Your task to perform on an android device: delete the emails in spam in the gmail app Image 0: 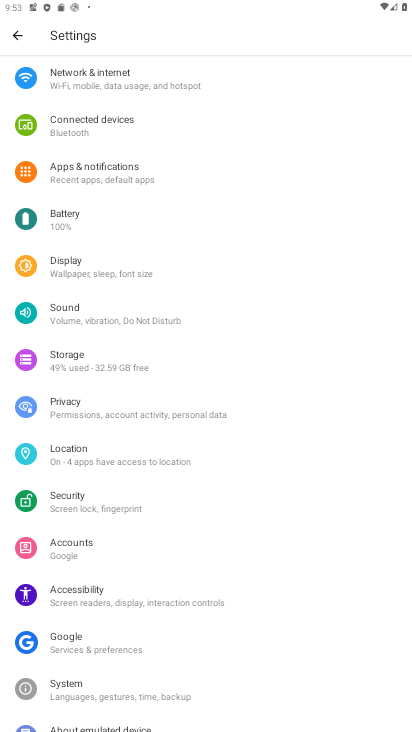
Step 0: press home button
Your task to perform on an android device: delete the emails in spam in the gmail app Image 1: 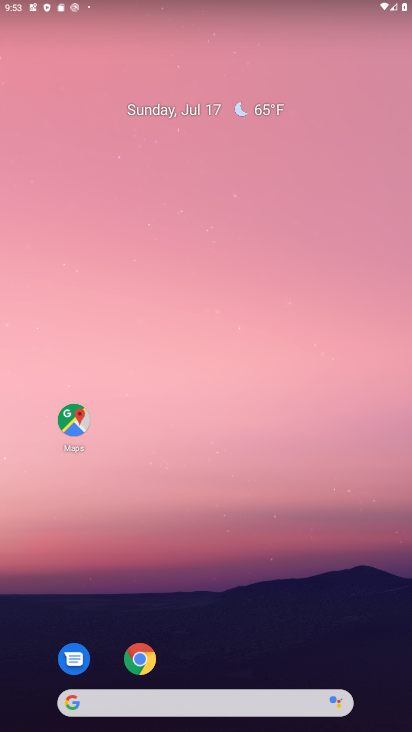
Step 1: drag from (219, 648) to (192, 41)
Your task to perform on an android device: delete the emails in spam in the gmail app Image 2: 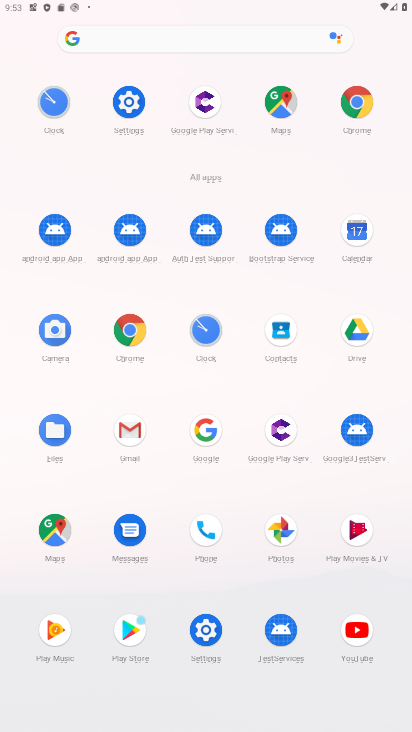
Step 2: click (124, 439)
Your task to perform on an android device: delete the emails in spam in the gmail app Image 3: 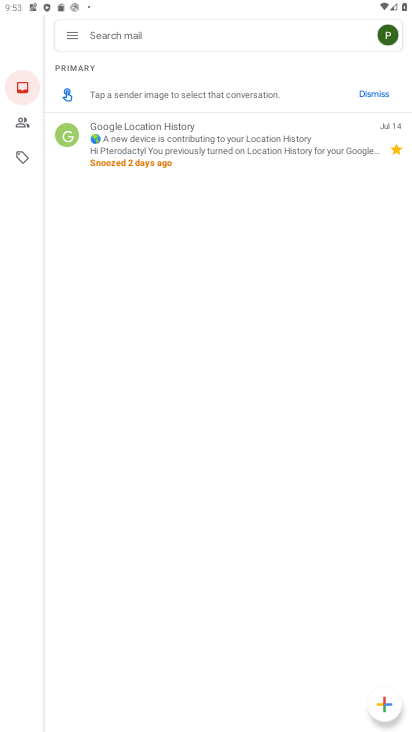
Step 3: click (66, 139)
Your task to perform on an android device: delete the emails in spam in the gmail app Image 4: 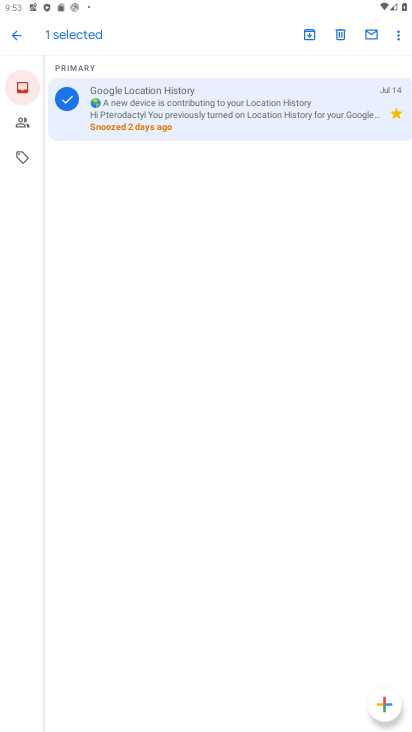
Step 4: click (63, 98)
Your task to perform on an android device: delete the emails in spam in the gmail app Image 5: 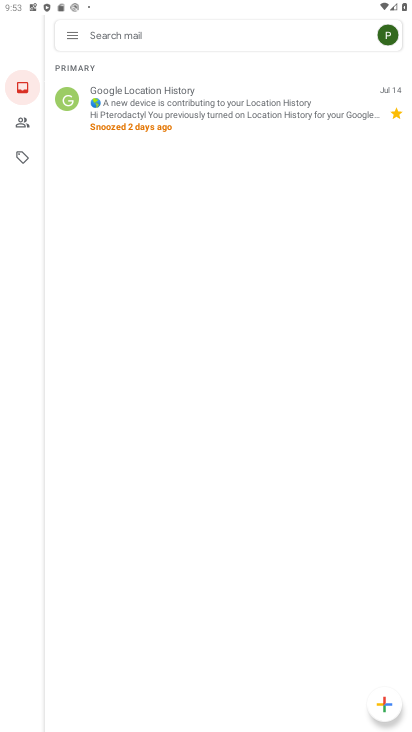
Step 5: click (69, 49)
Your task to perform on an android device: delete the emails in spam in the gmail app Image 6: 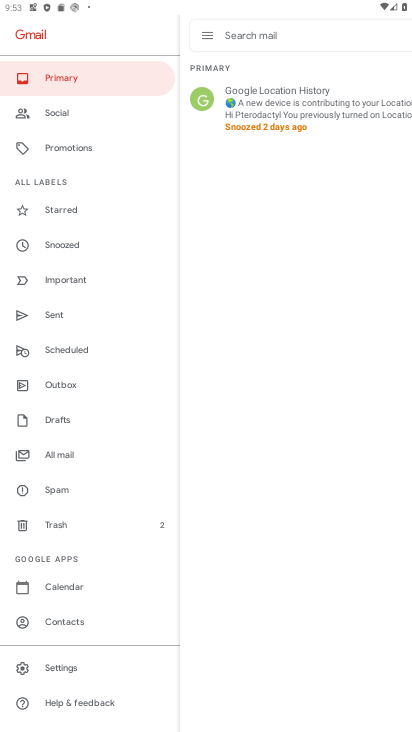
Step 6: click (81, 487)
Your task to perform on an android device: delete the emails in spam in the gmail app Image 7: 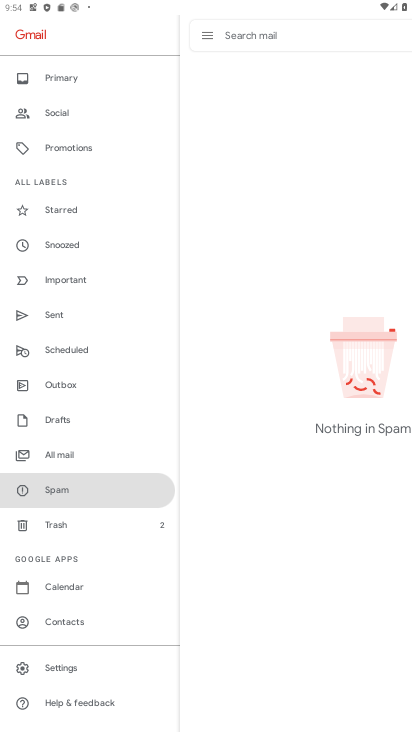
Step 7: task complete